Your task to perform on an android device: check battery use Image 0: 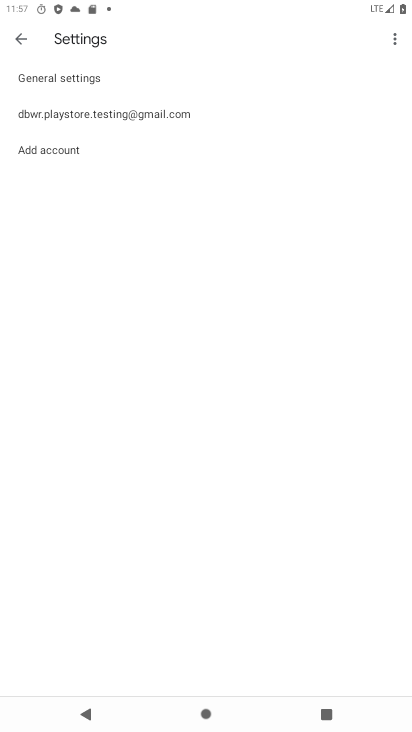
Step 0: press home button
Your task to perform on an android device: check battery use Image 1: 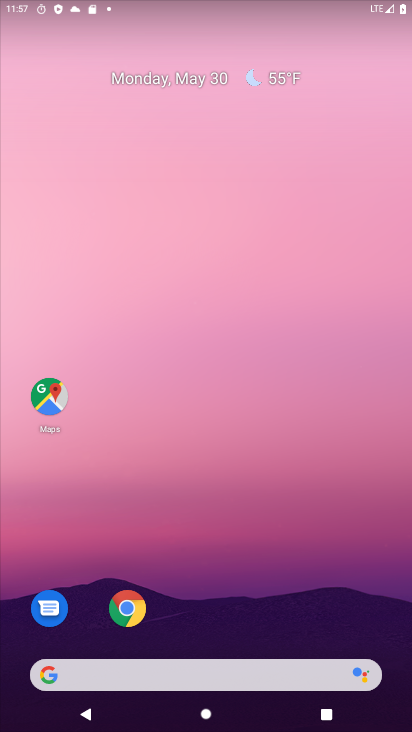
Step 1: drag from (268, 641) to (287, 28)
Your task to perform on an android device: check battery use Image 2: 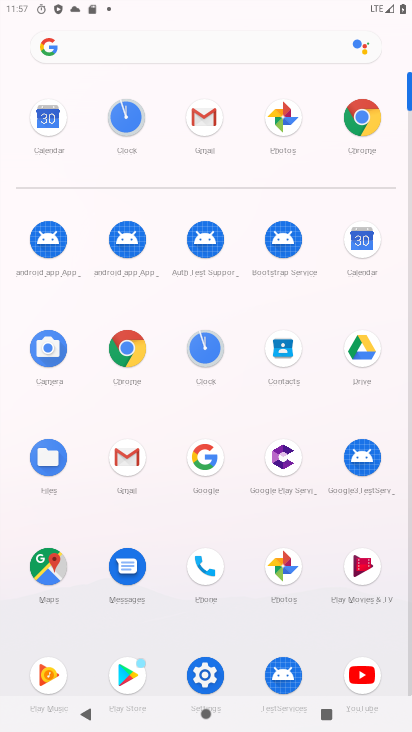
Step 2: click (209, 673)
Your task to perform on an android device: check battery use Image 3: 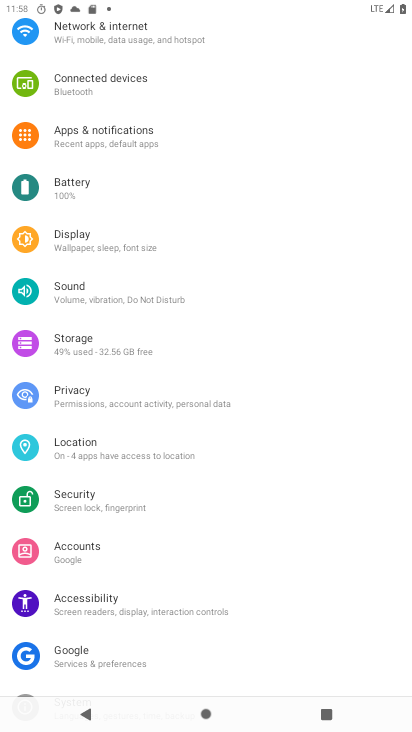
Step 3: click (68, 187)
Your task to perform on an android device: check battery use Image 4: 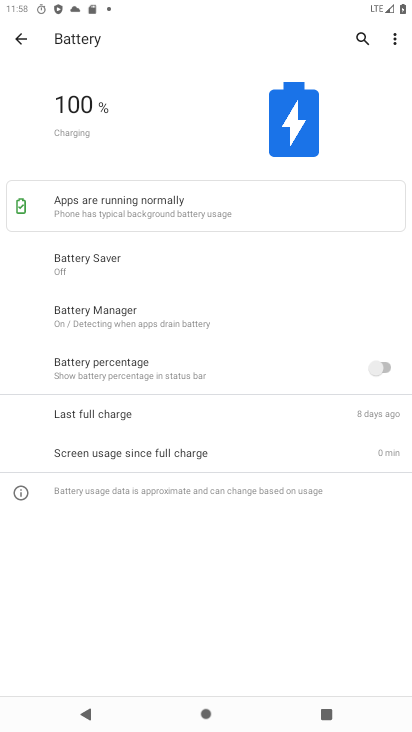
Step 4: click (392, 43)
Your task to perform on an android device: check battery use Image 5: 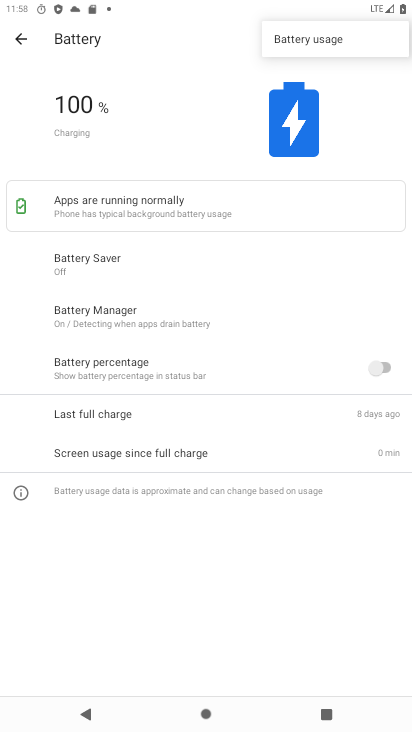
Step 5: click (333, 41)
Your task to perform on an android device: check battery use Image 6: 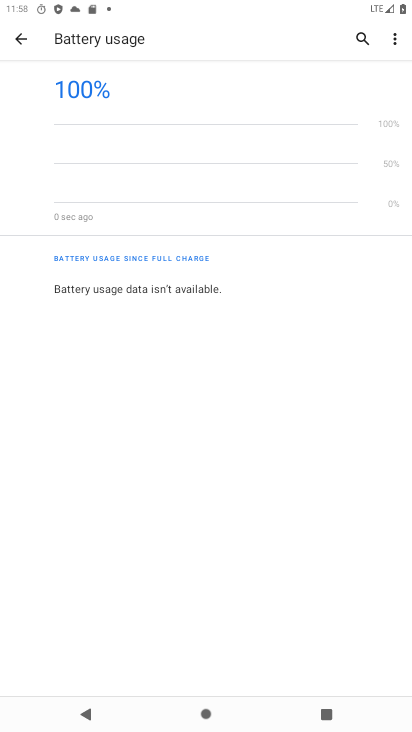
Step 6: task complete